Your task to perform on an android device: change the clock display to analog Image 0: 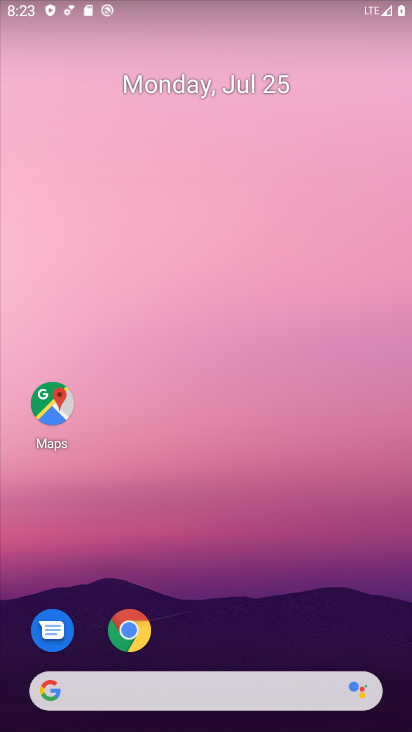
Step 0: drag from (66, 472) to (151, 221)
Your task to perform on an android device: change the clock display to analog Image 1: 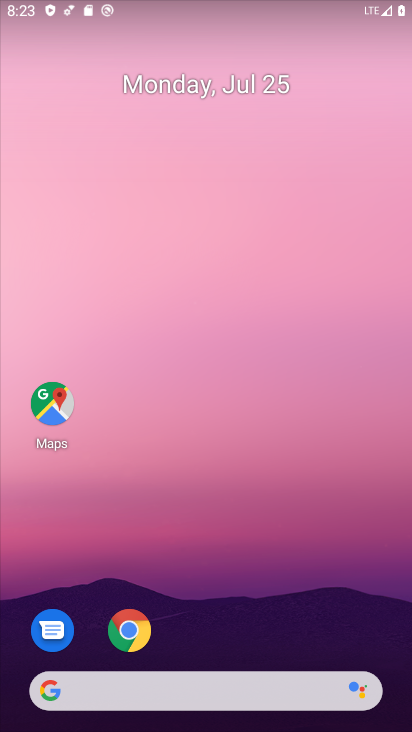
Step 1: drag from (7, 690) to (109, 250)
Your task to perform on an android device: change the clock display to analog Image 2: 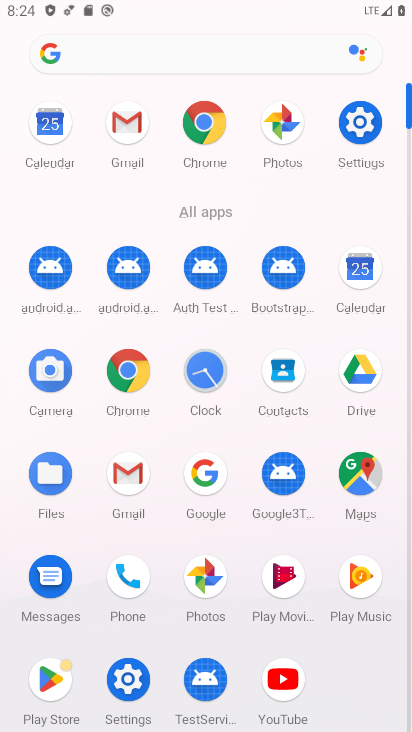
Step 2: click (184, 389)
Your task to perform on an android device: change the clock display to analog Image 3: 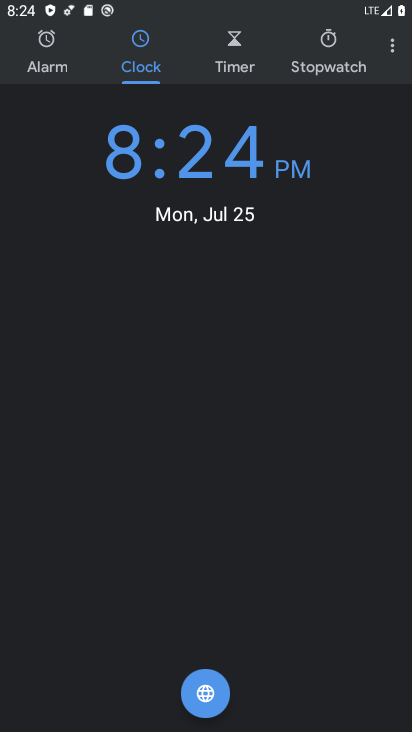
Step 3: click (393, 37)
Your task to perform on an android device: change the clock display to analog Image 4: 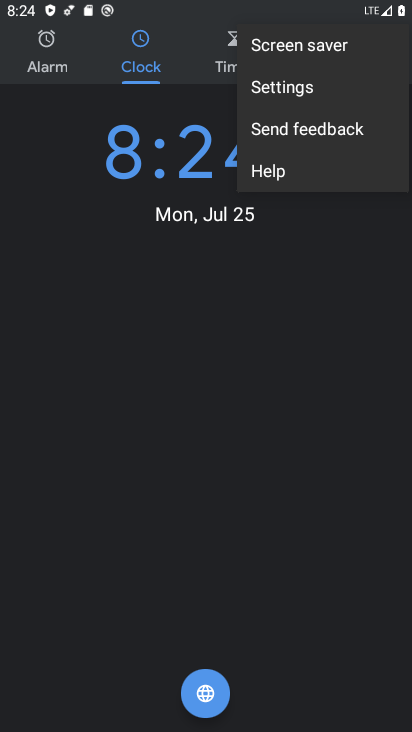
Step 4: click (271, 100)
Your task to perform on an android device: change the clock display to analog Image 5: 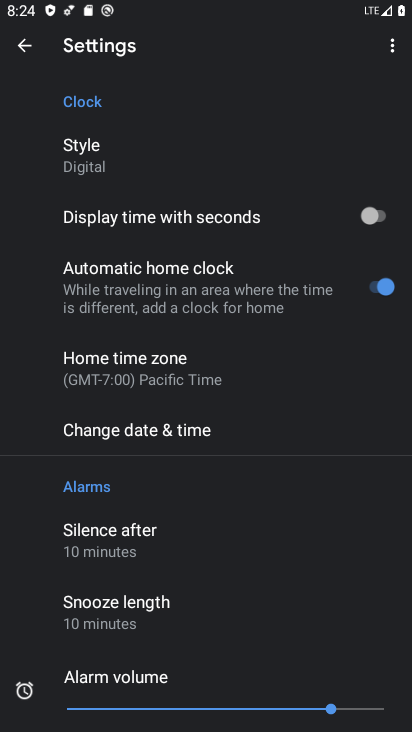
Step 5: click (107, 173)
Your task to perform on an android device: change the clock display to analog Image 6: 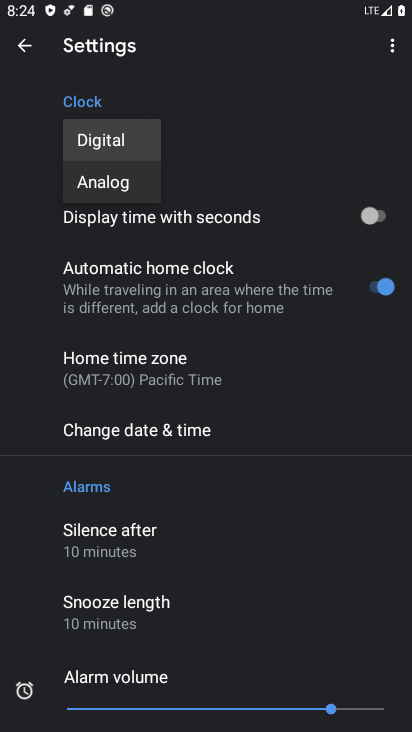
Step 6: click (99, 182)
Your task to perform on an android device: change the clock display to analog Image 7: 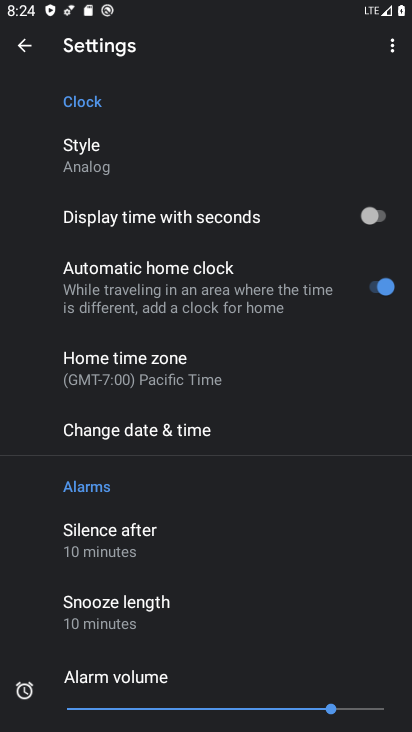
Step 7: task complete